Your task to perform on an android device: Go to Maps Image 0: 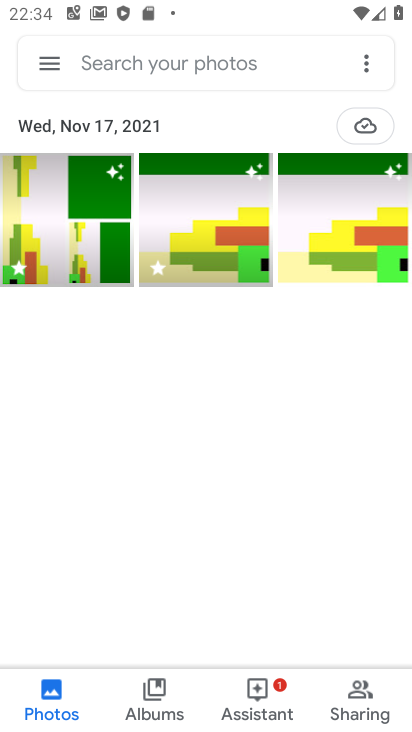
Step 0: press home button
Your task to perform on an android device: Go to Maps Image 1: 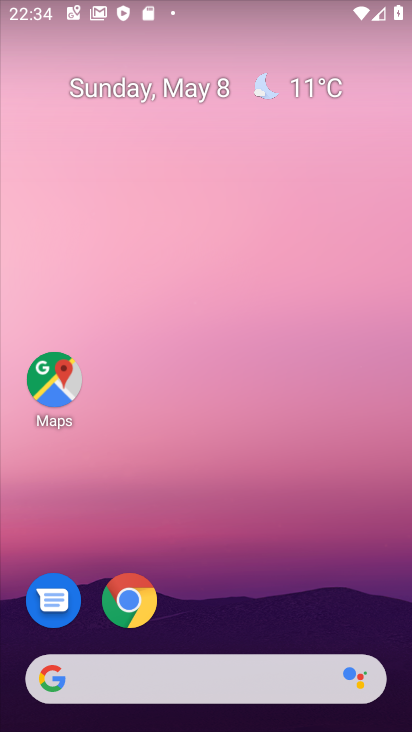
Step 1: click (62, 365)
Your task to perform on an android device: Go to Maps Image 2: 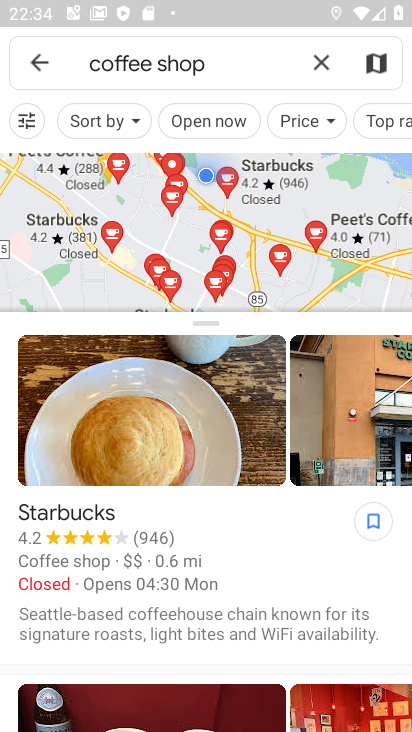
Step 2: task complete